Your task to perform on an android device: Search for sushi restaurants on Maps Image 0: 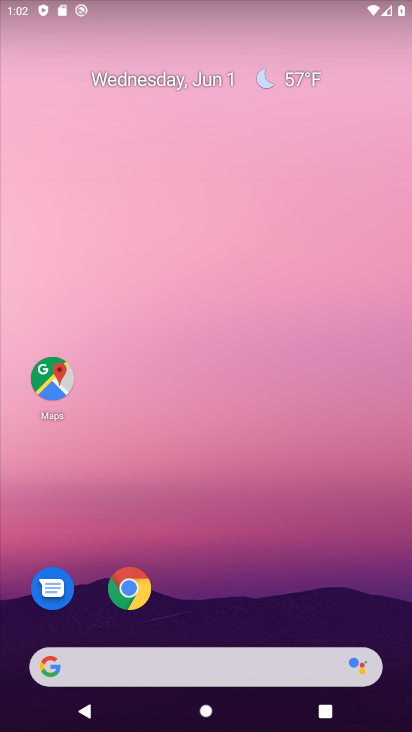
Step 0: click (55, 368)
Your task to perform on an android device: Search for sushi restaurants on Maps Image 1: 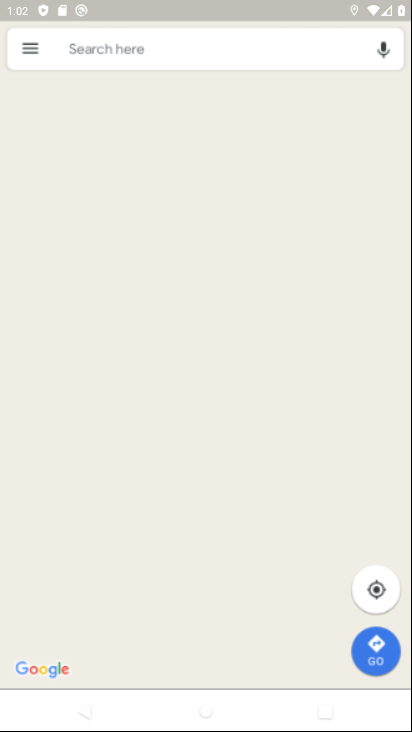
Step 1: click (172, 46)
Your task to perform on an android device: Search for sushi restaurants on Maps Image 2: 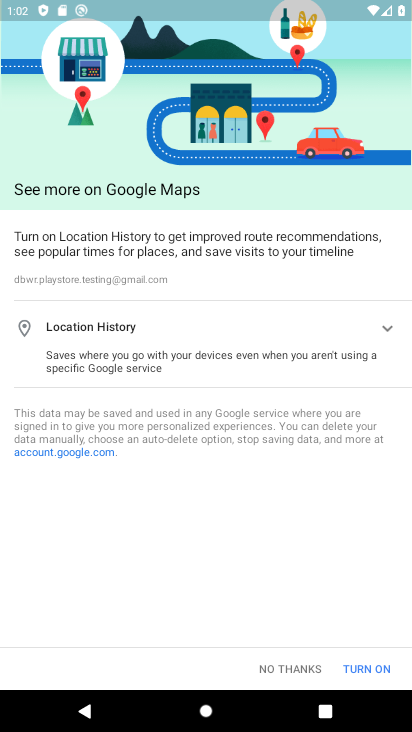
Step 2: click (289, 665)
Your task to perform on an android device: Search for sushi restaurants on Maps Image 3: 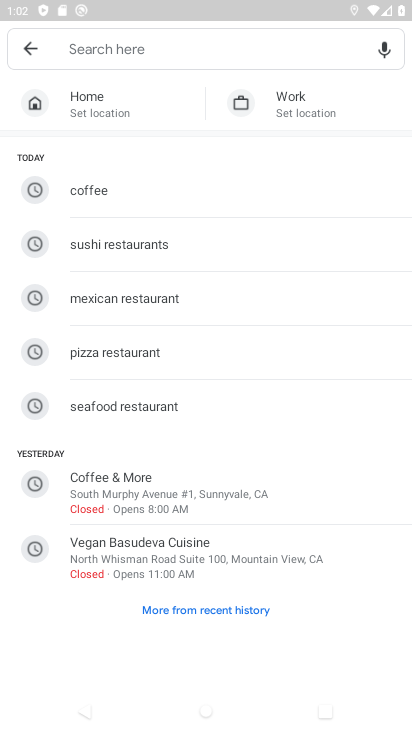
Step 3: click (137, 243)
Your task to perform on an android device: Search for sushi restaurants on Maps Image 4: 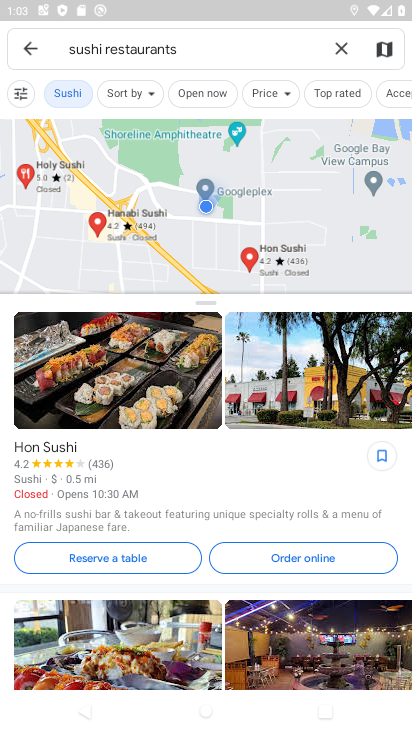
Step 4: task complete